Your task to perform on an android device: uninstall "Expedia: Hotels, Flights & Car" Image 0: 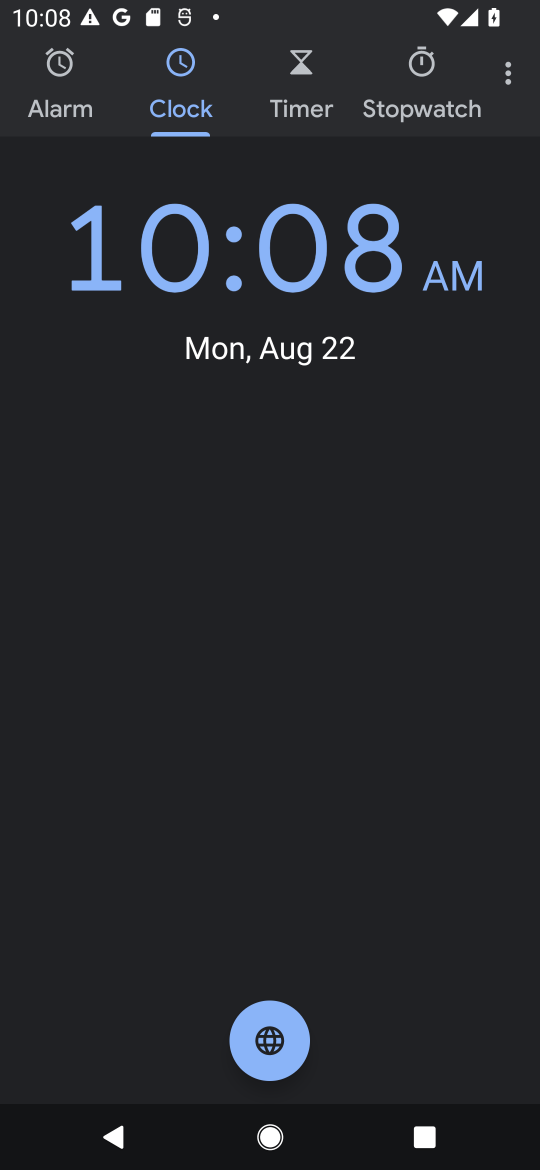
Step 0: press home button
Your task to perform on an android device: uninstall "Expedia: Hotels, Flights & Car" Image 1: 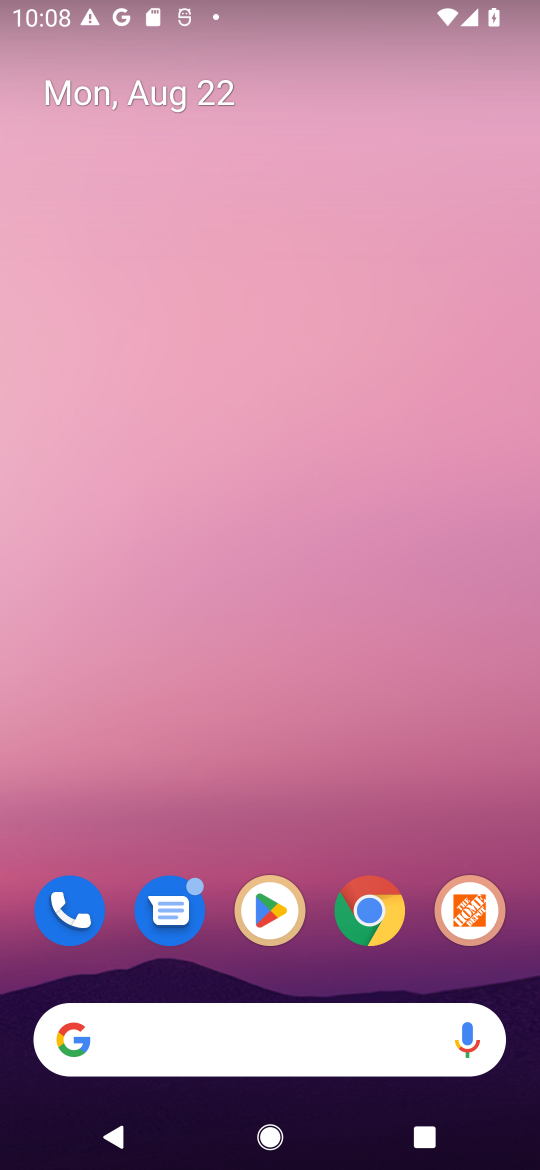
Step 1: click (269, 911)
Your task to perform on an android device: uninstall "Expedia: Hotels, Flights & Car" Image 2: 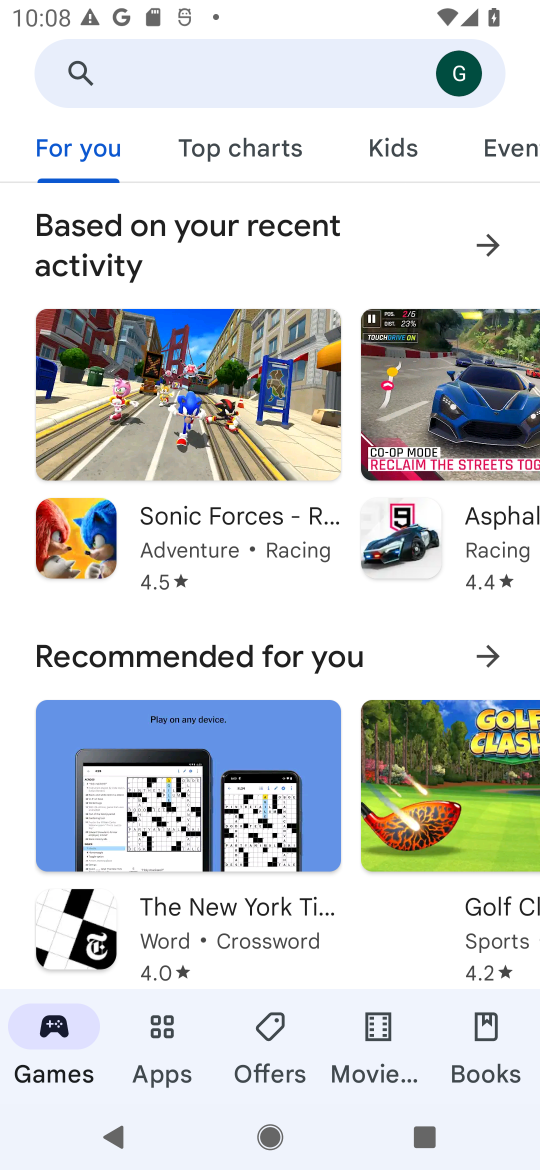
Step 2: click (350, 71)
Your task to perform on an android device: uninstall "Expedia: Hotels, Flights & Car" Image 3: 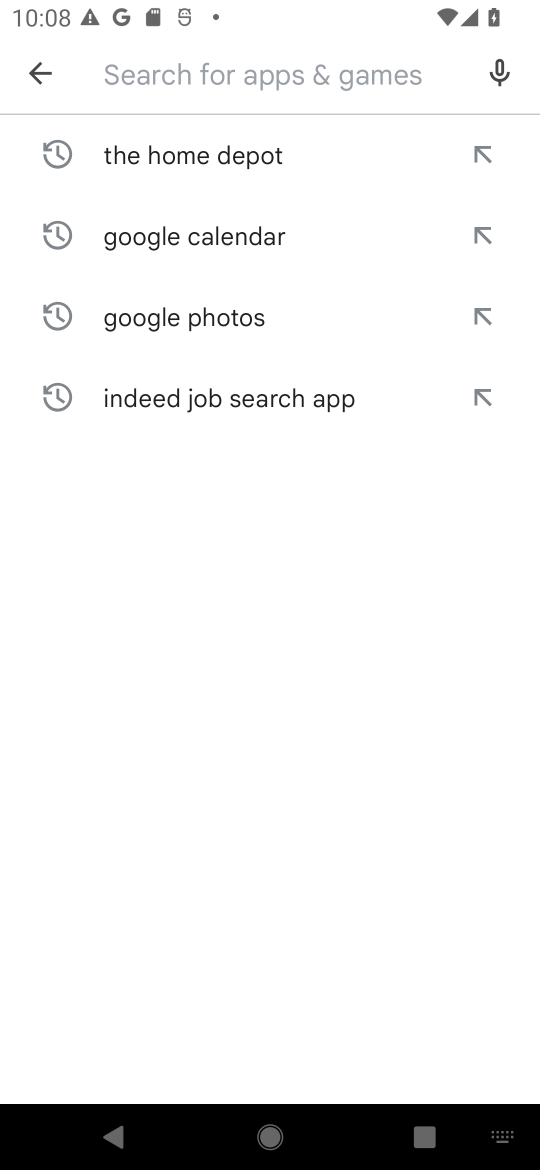
Step 3: type "Expedia: Hotels, Flights & Car"
Your task to perform on an android device: uninstall "Expedia: Hotels, Flights & Car" Image 4: 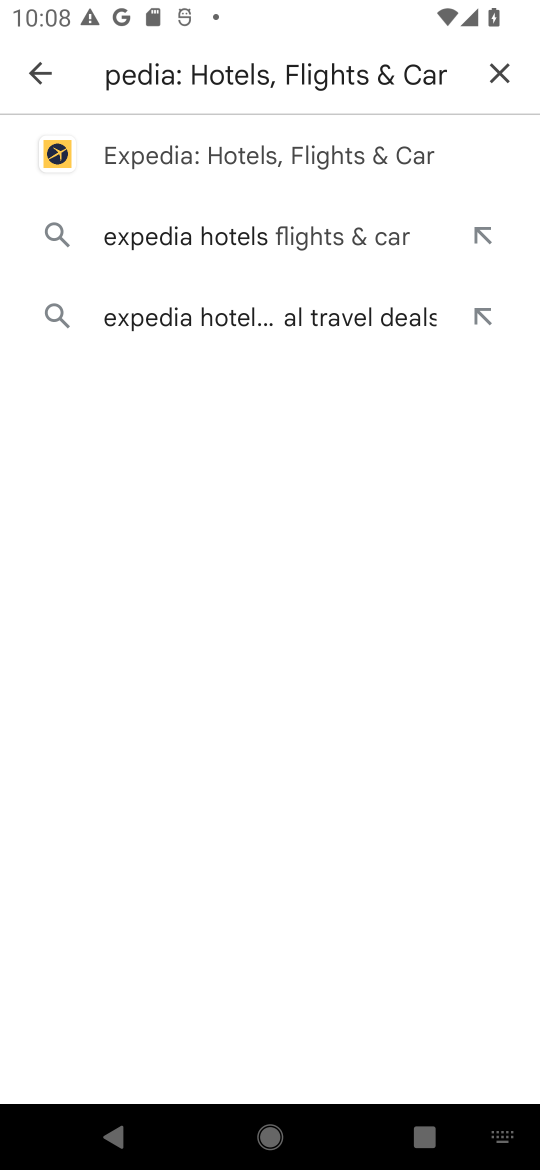
Step 4: click (256, 163)
Your task to perform on an android device: uninstall "Expedia: Hotels, Flights & Car" Image 5: 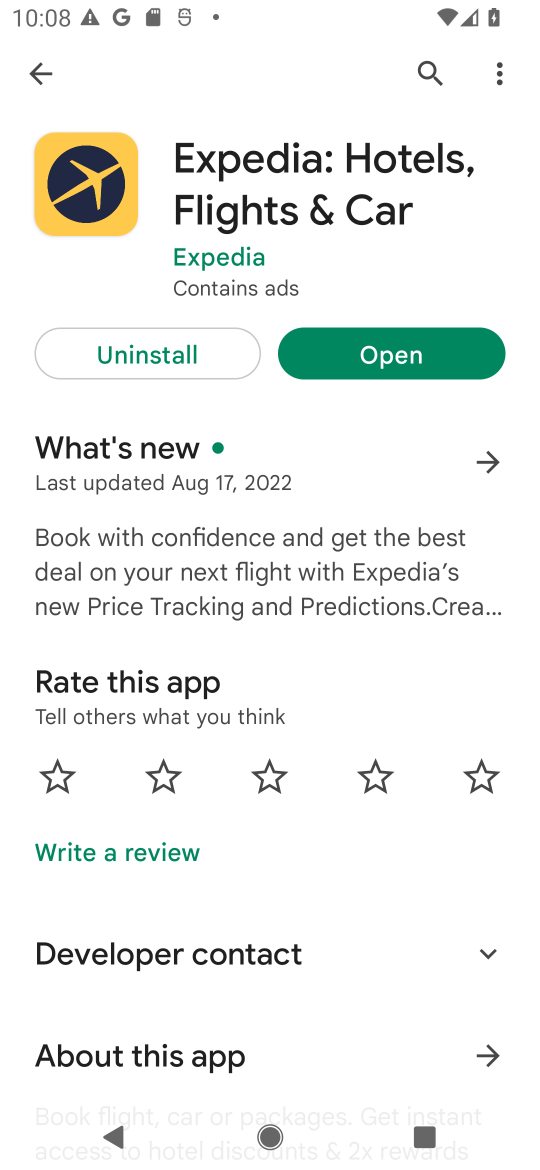
Step 5: click (192, 347)
Your task to perform on an android device: uninstall "Expedia: Hotels, Flights & Car" Image 6: 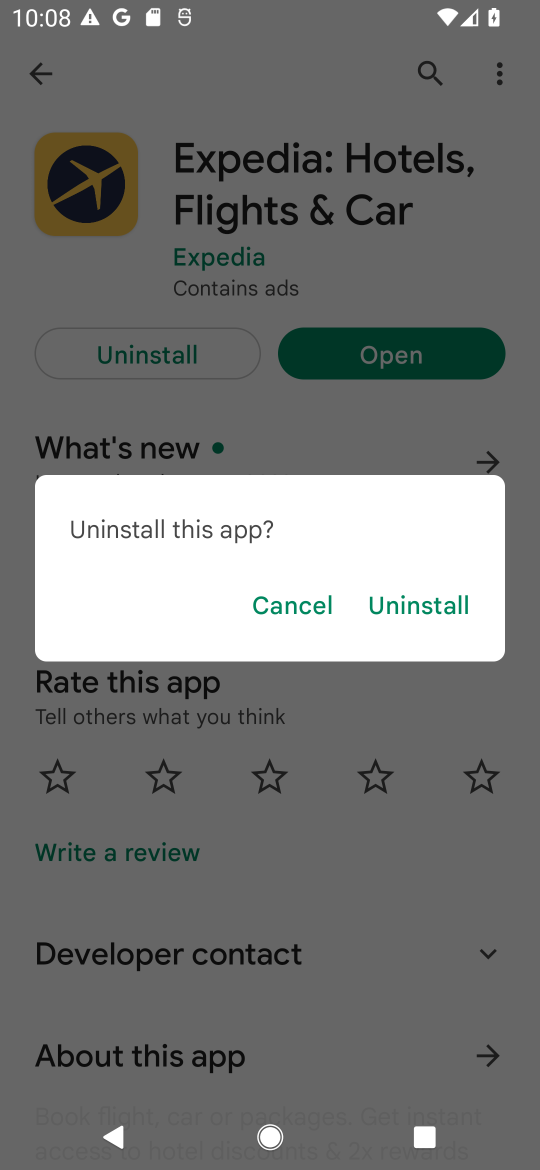
Step 6: click (445, 610)
Your task to perform on an android device: uninstall "Expedia: Hotels, Flights & Car" Image 7: 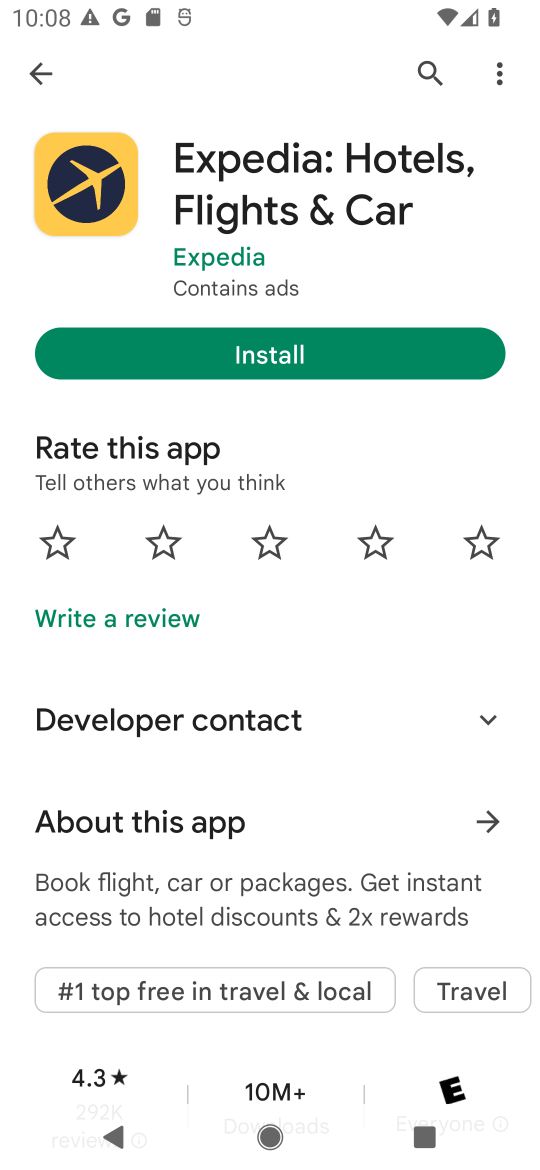
Step 7: task complete